Your task to perform on an android device: star an email in the gmail app Image 0: 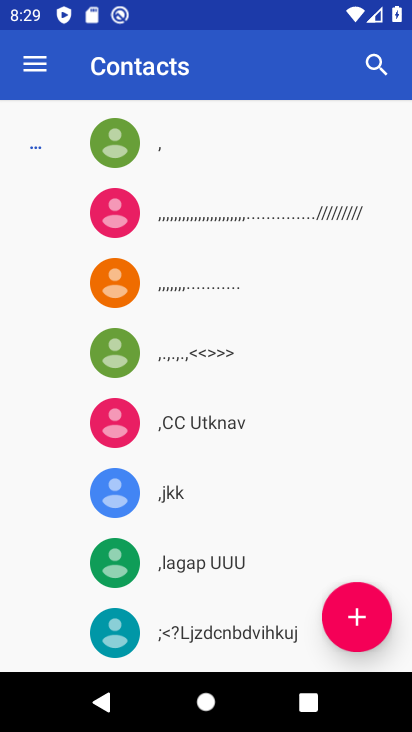
Step 0: press home button
Your task to perform on an android device: star an email in the gmail app Image 1: 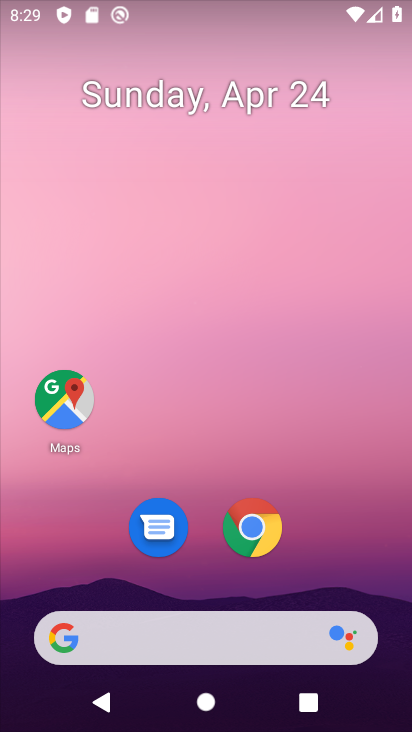
Step 1: drag from (400, 613) to (403, 5)
Your task to perform on an android device: star an email in the gmail app Image 2: 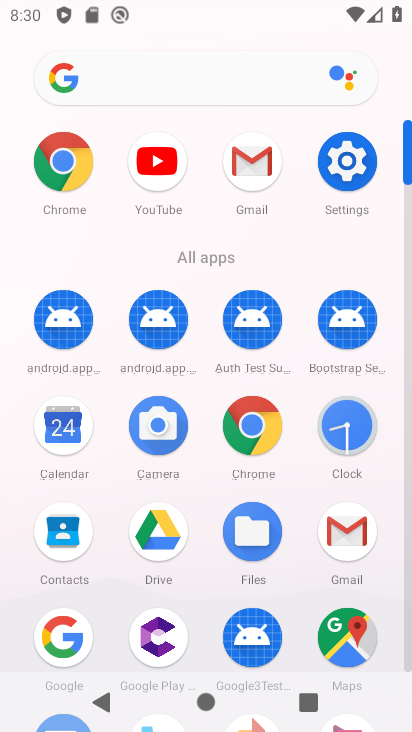
Step 2: click (241, 162)
Your task to perform on an android device: star an email in the gmail app Image 3: 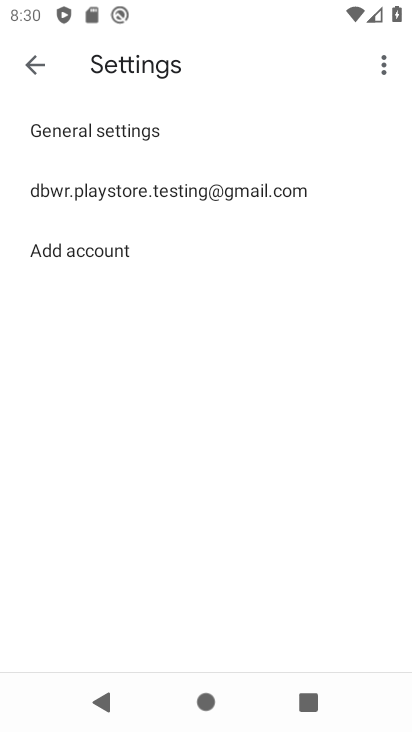
Step 3: click (34, 67)
Your task to perform on an android device: star an email in the gmail app Image 4: 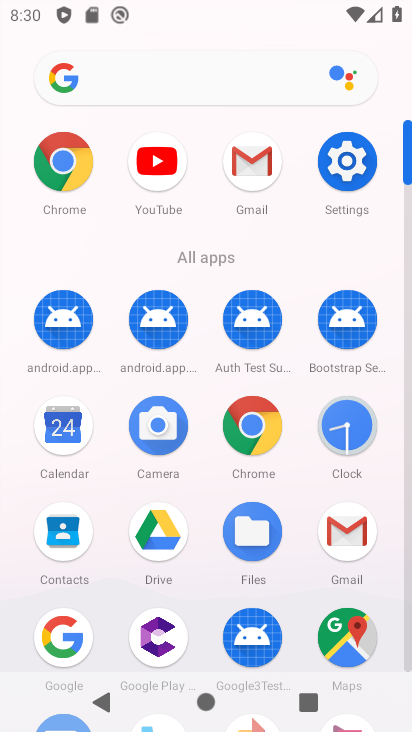
Step 4: click (243, 176)
Your task to perform on an android device: star an email in the gmail app Image 5: 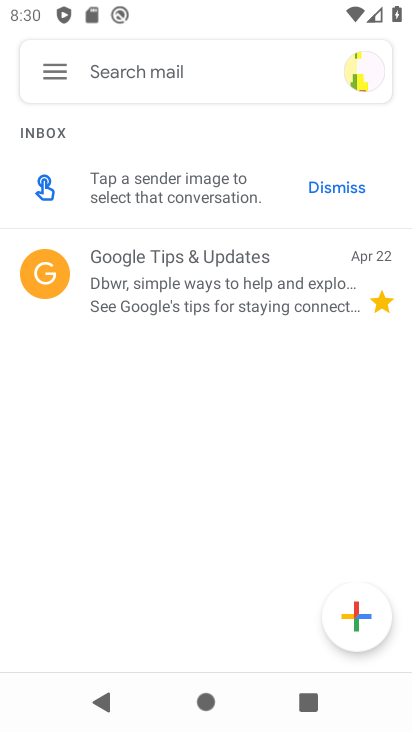
Step 5: click (58, 75)
Your task to perform on an android device: star an email in the gmail app Image 6: 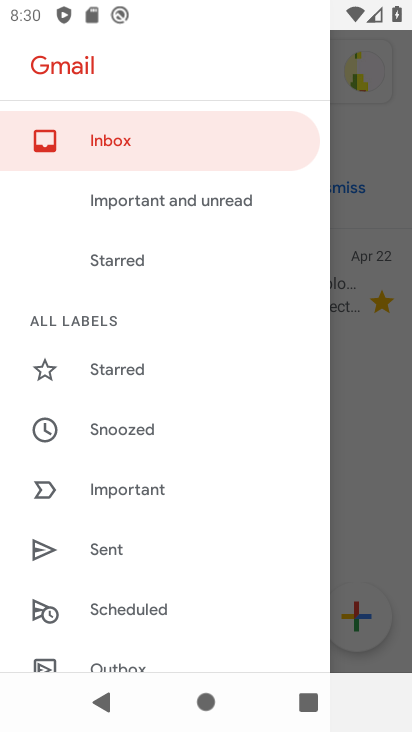
Step 6: drag from (156, 544) to (157, 152)
Your task to perform on an android device: star an email in the gmail app Image 7: 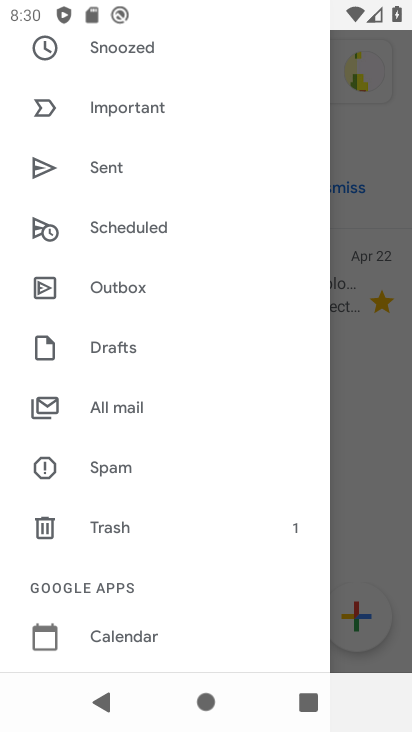
Step 7: click (120, 408)
Your task to perform on an android device: star an email in the gmail app Image 8: 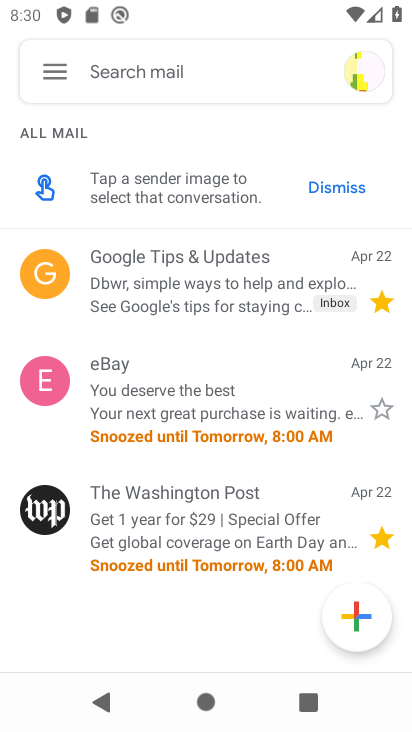
Step 8: click (208, 410)
Your task to perform on an android device: star an email in the gmail app Image 9: 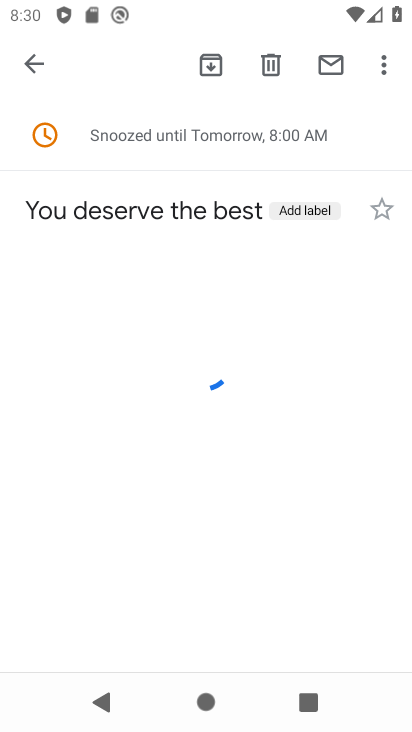
Step 9: click (378, 215)
Your task to perform on an android device: star an email in the gmail app Image 10: 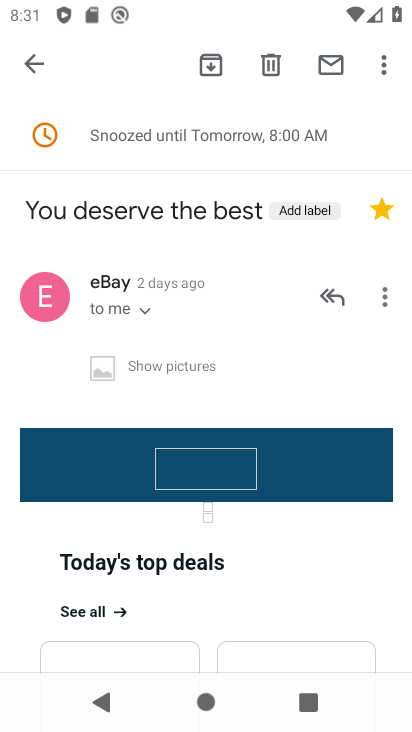
Step 10: task complete